Your task to perform on an android device: Clear the cart on newegg.com. Image 0: 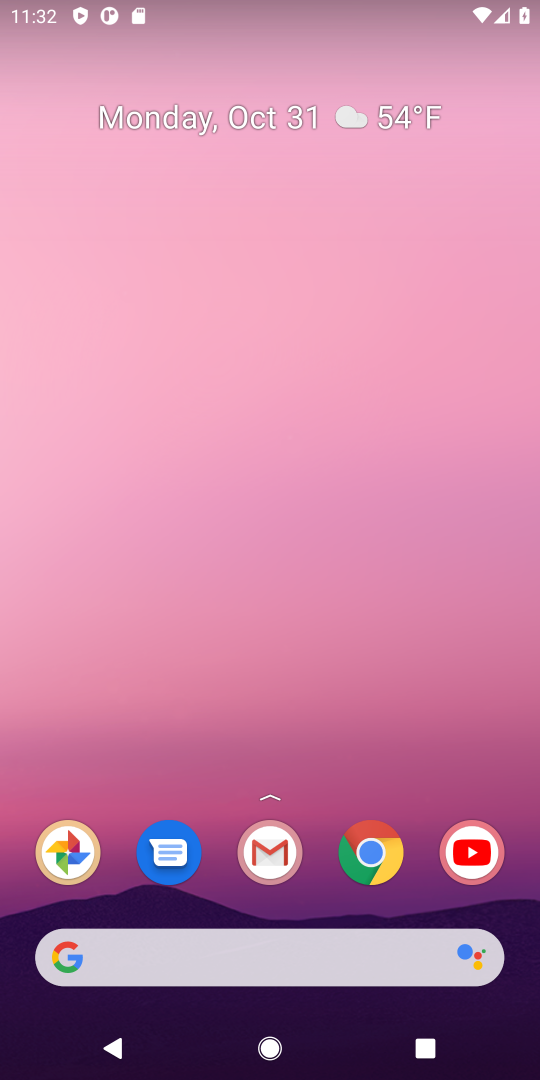
Step 0: click (365, 868)
Your task to perform on an android device: Clear the cart on newegg.com. Image 1: 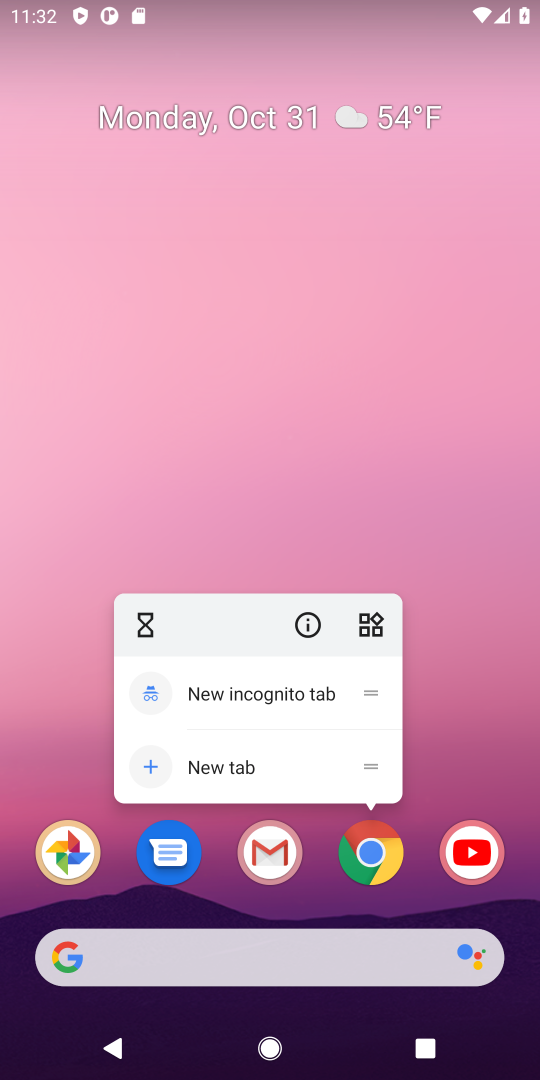
Step 1: click (385, 860)
Your task to perform on an android device: Clear the cart on newegg.com. Image 2: 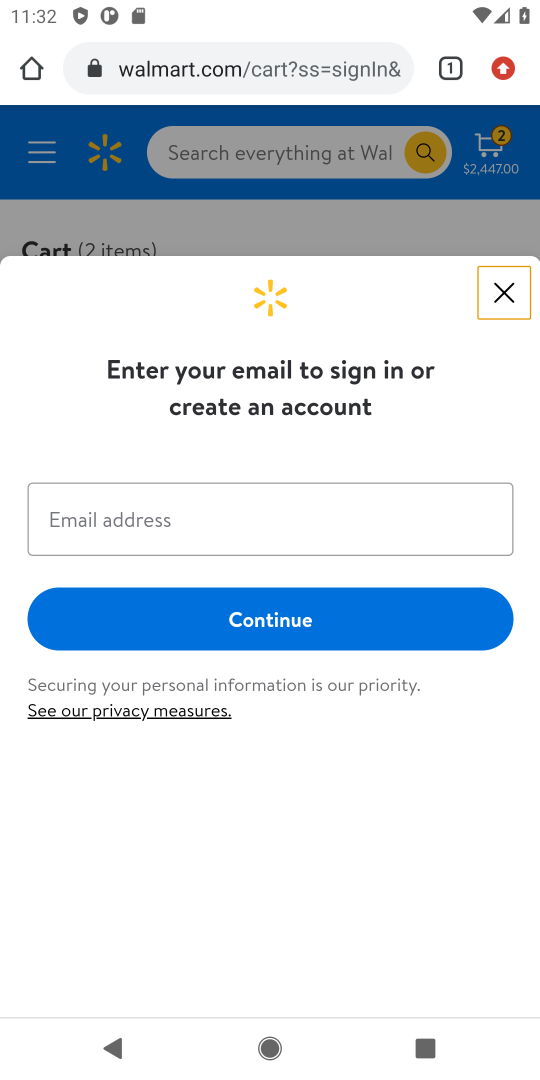
Step 2: click (248, 67)
Your task to perform on an android device: Clear the cart on newegg.com. Image 3: 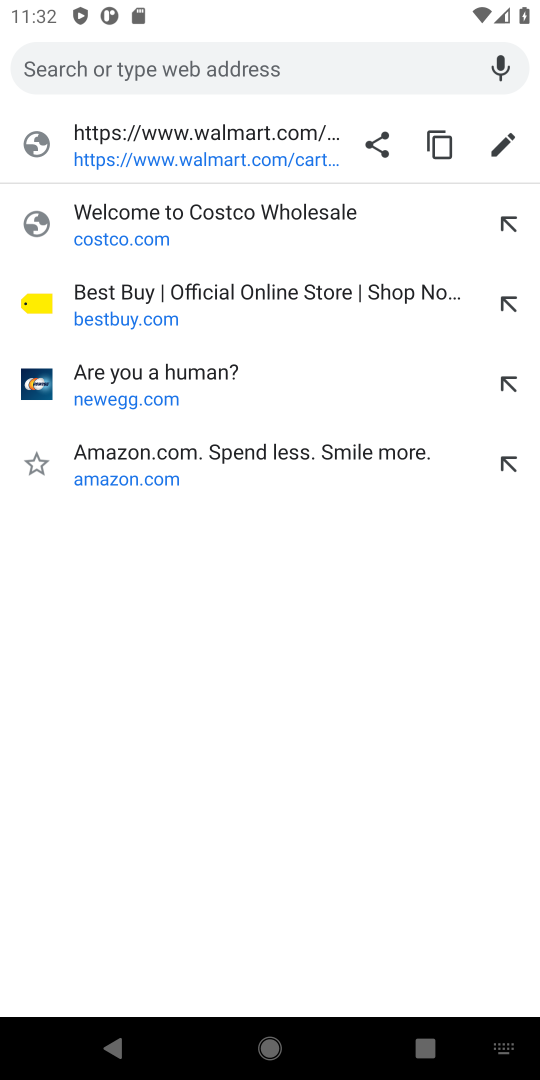
Step 3: type "newegg.com"
Your task to perform on an android device: Clear the cart on newegg.com. Image 4: 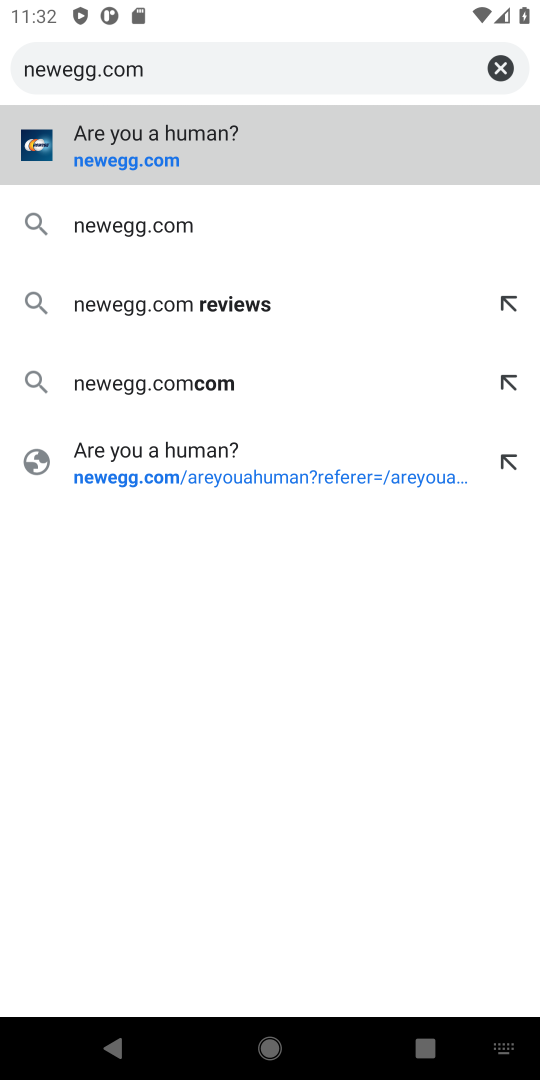
Step 4: type ""
Your task to perform on an android device: Clear the cart on newegg.com. Image 5: 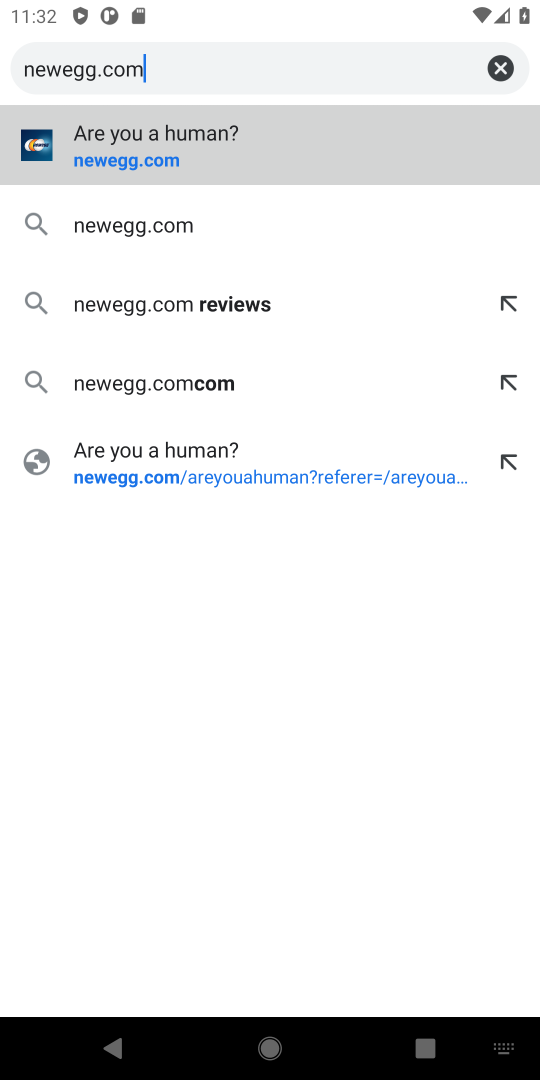
Step 5: press enter
Your task to perform on an android device: Clear the cart on newegg.com. Image 6: 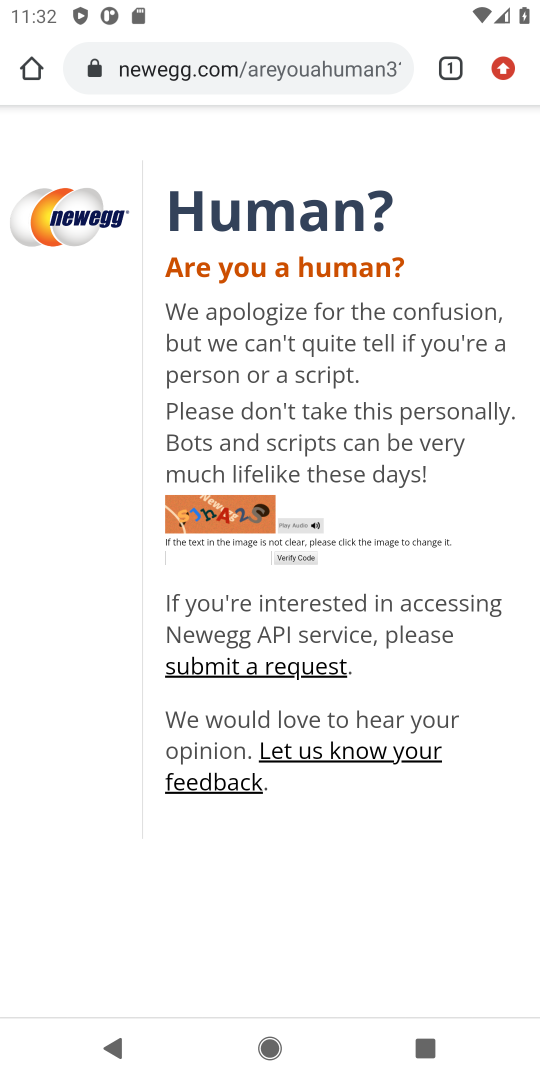
Step 6: click (196, 559)
Your task to perform on an android device: Clear the cart on newegg.com. Image 7: 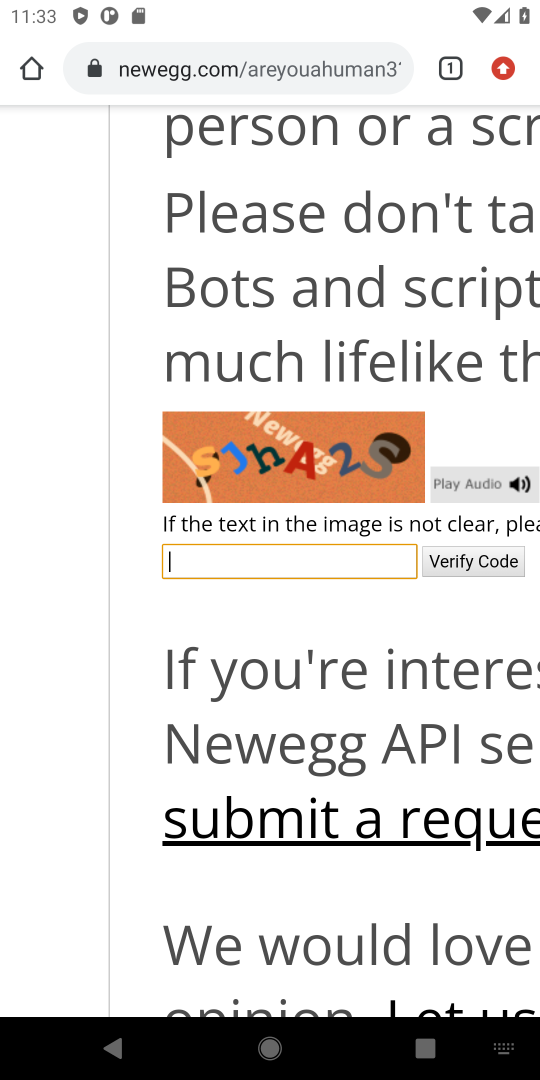
Step 7: type "sJhA2S"
Your task to perform on an android device: Clear the cart on newegg.com. Image 8: 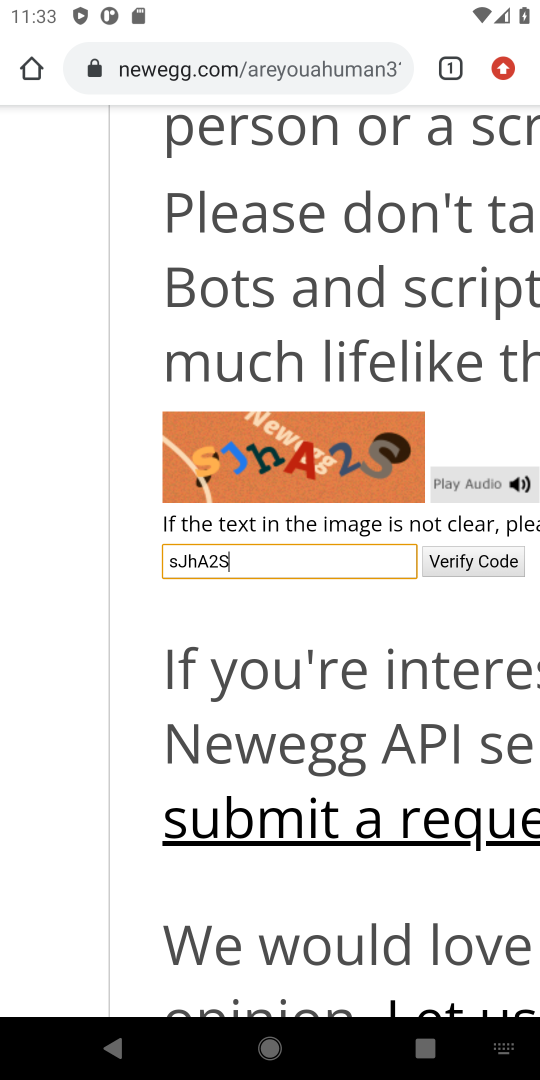
Step 8: type ""
Your task to perform on an android device: Clear the cart on newegg.com. Image 9: 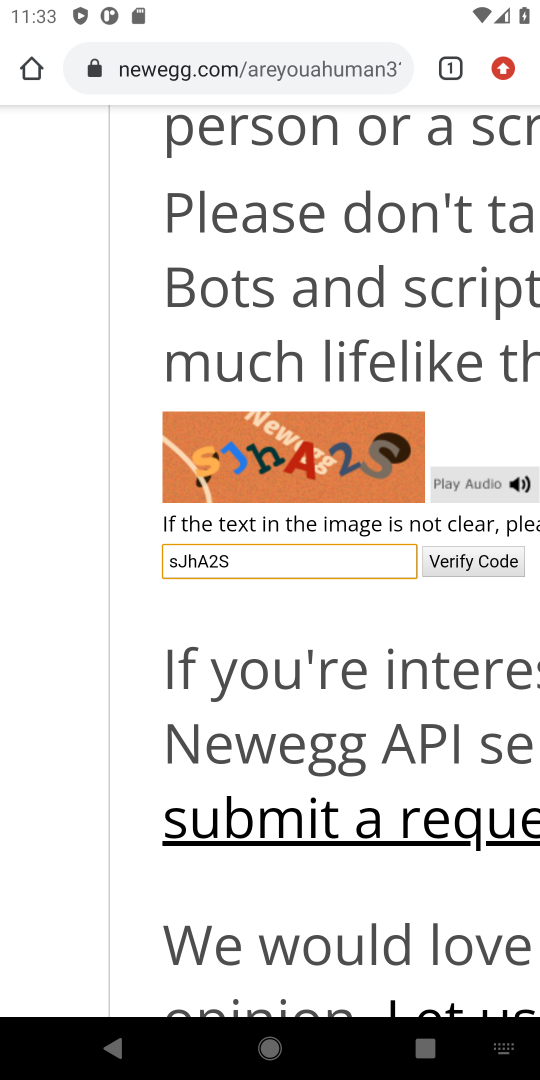
Step 9: click (505, 561)
Your task to perform on an android device: Clear the cart on newegg.com. Image 10: 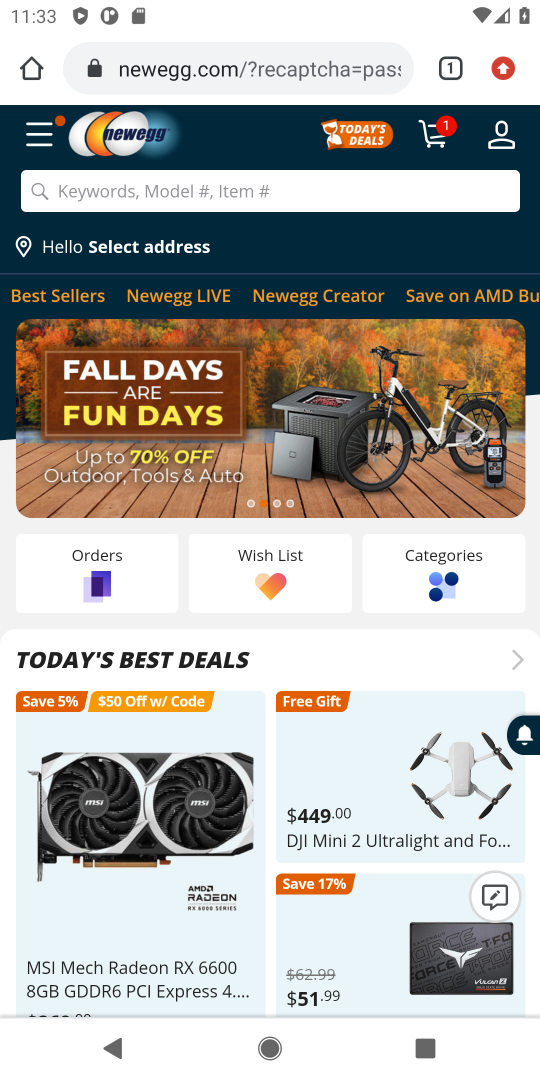
Step 10: click (431, 144)
Your task to perform on an android device: Clear the cart on newegg.com. Image 11: 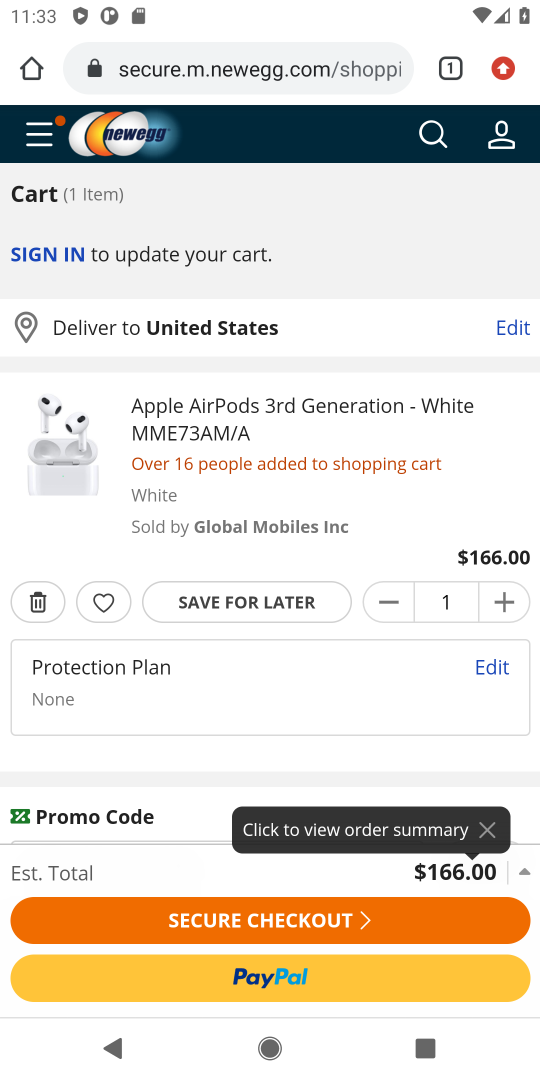
Step 11: click (36, 604)
Your task to perform on an android device: Clear the cart on newegg.com. Image 12: 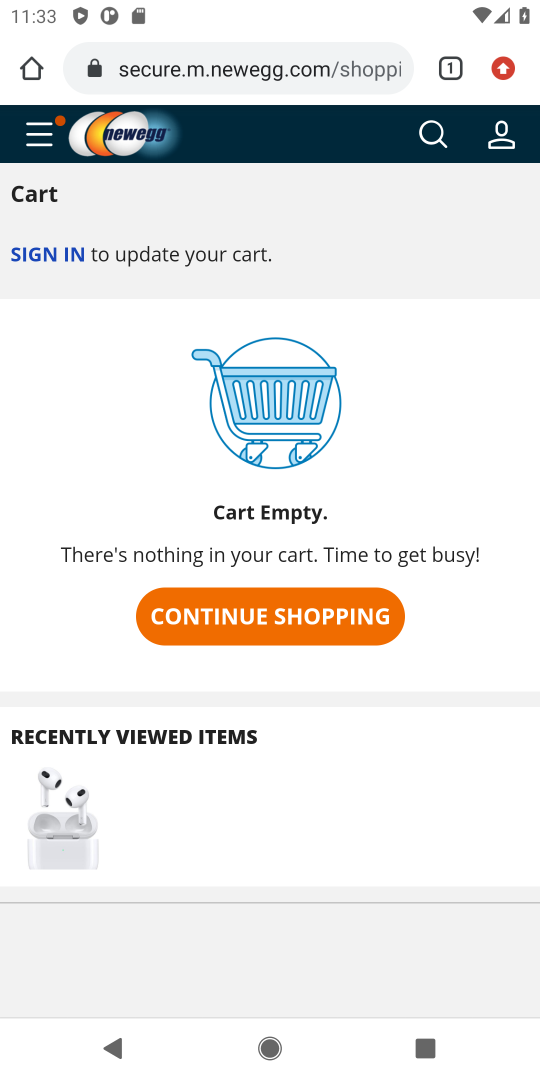
Step 12: task complete